Your task to perform on an android device: Search for the best rated desk chair on Article.com Image 0: 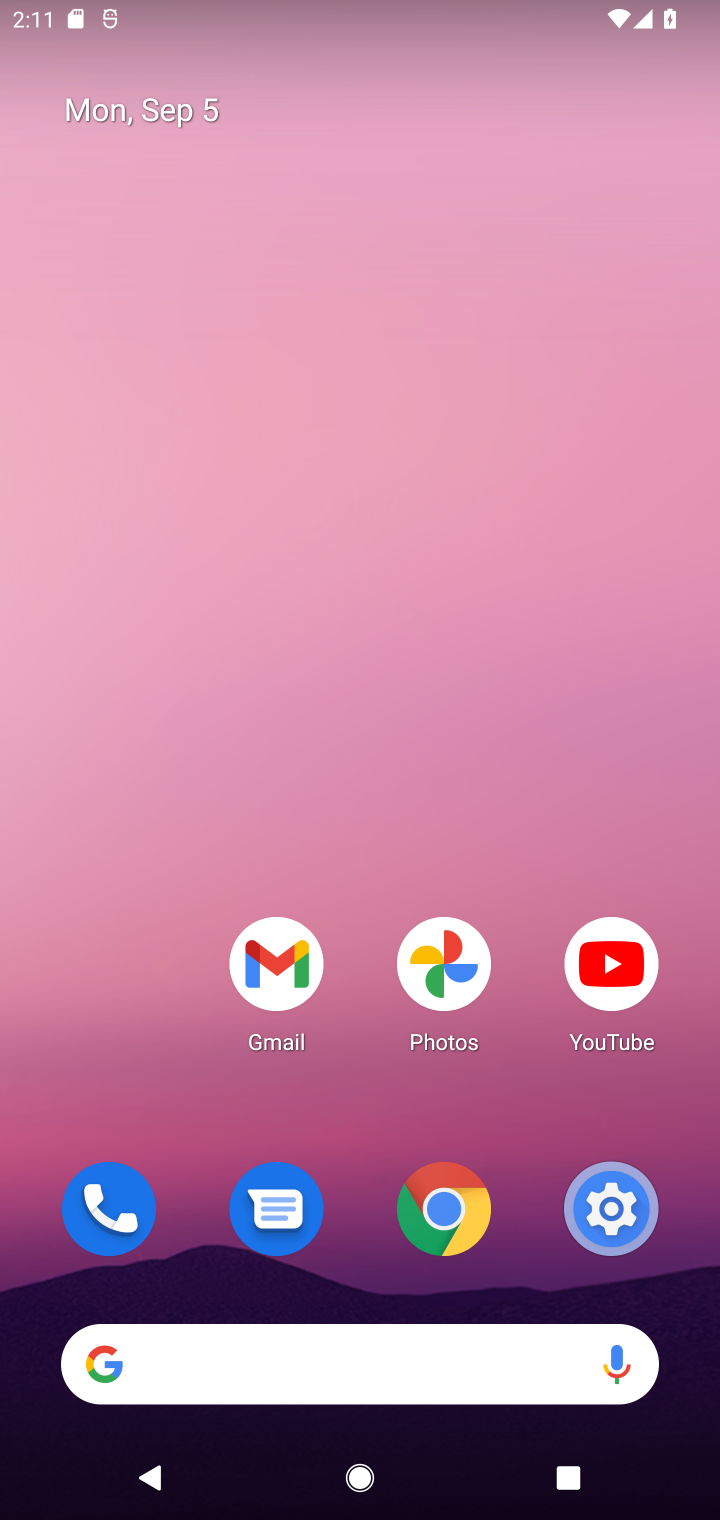
Step 0: drag from (385, 354) to (409, 0)
Your task to perform on an android device: Search for the best rated desk chair on Article.com Image 1: 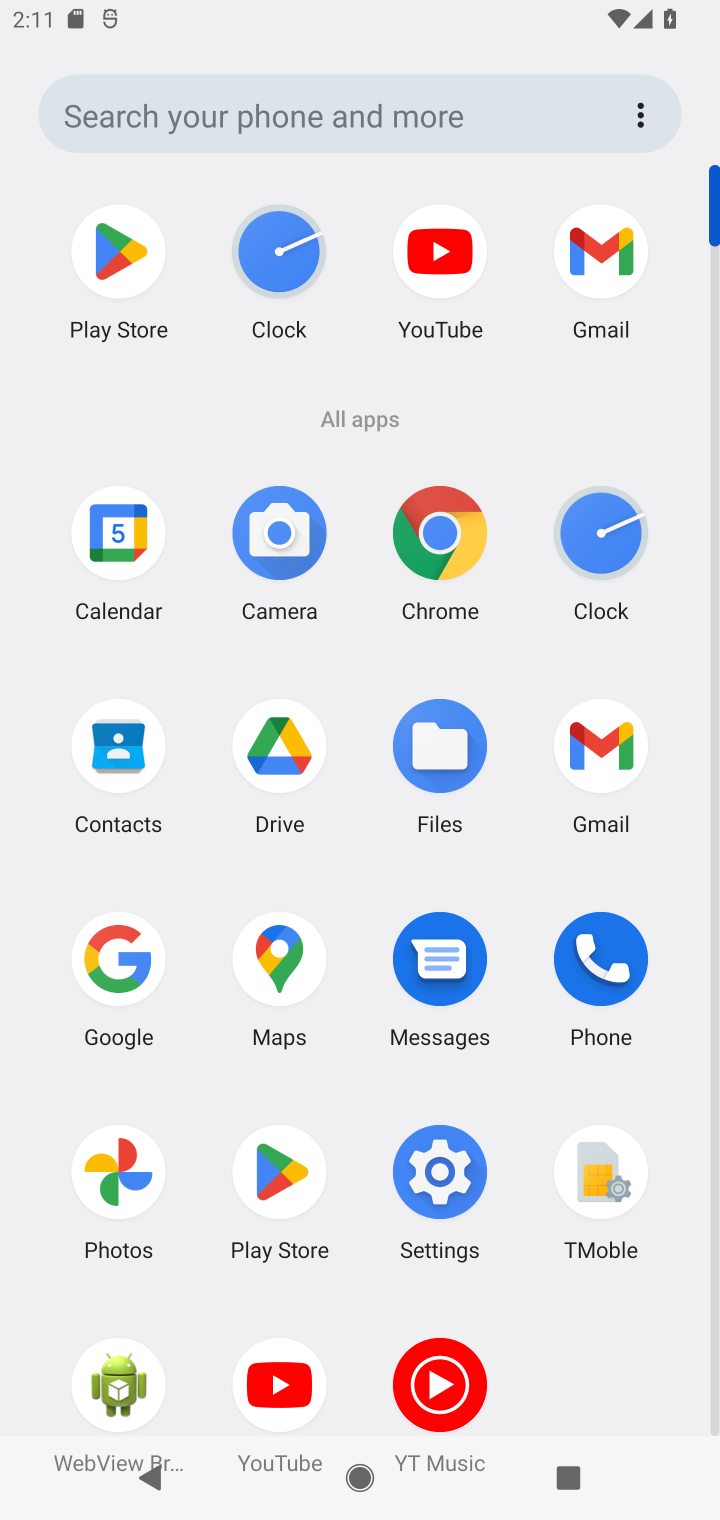
Step 1: click (97, 967)
Your task to perform on an android device: Search for the best rated desk chair on Article.com Image 2: 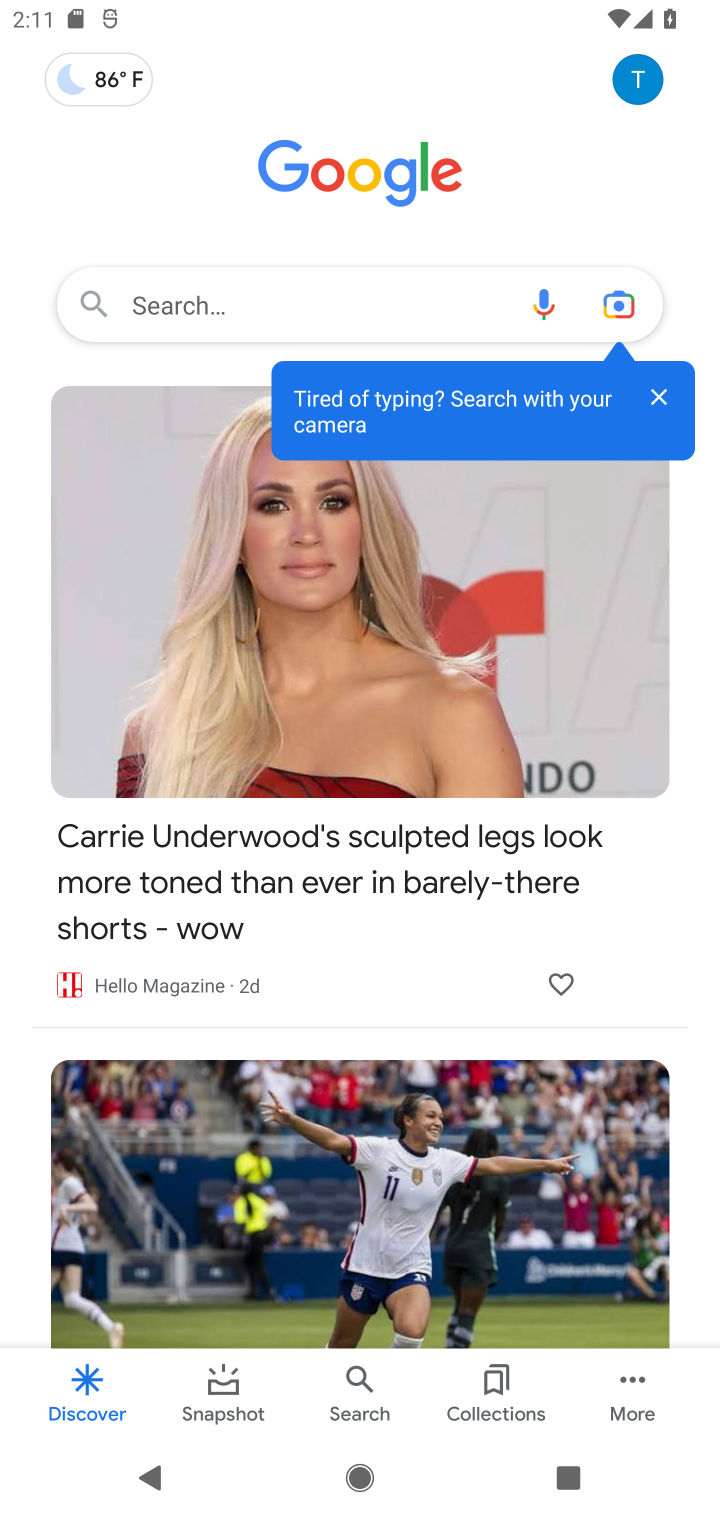
Step 2: click (180, 318)
Your task to perform on an android device: Search for the best rated desk chair on Article.com Image 3: 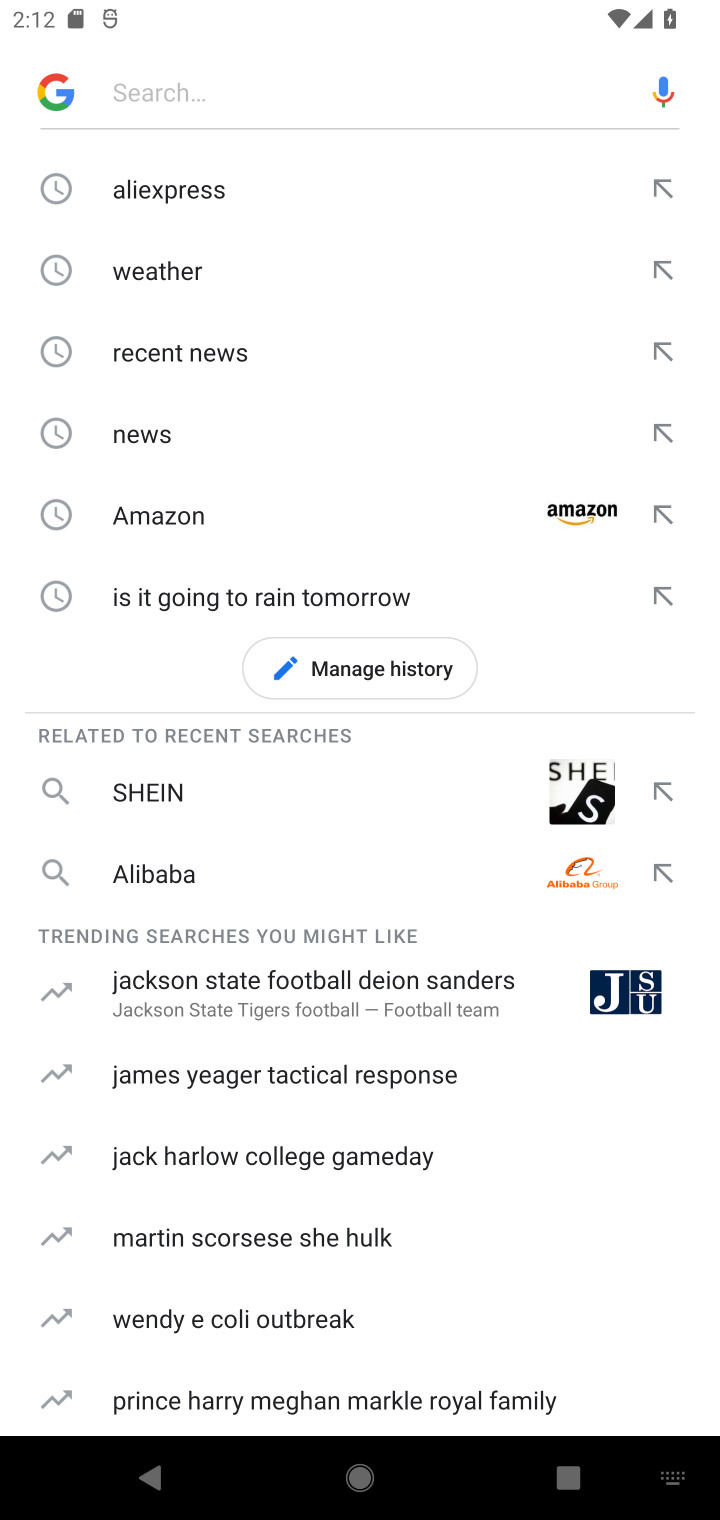
Step 3: type "Article.com"
Your task to perform on an android device: Search for the best rated desk chair on Article.com Image 4: 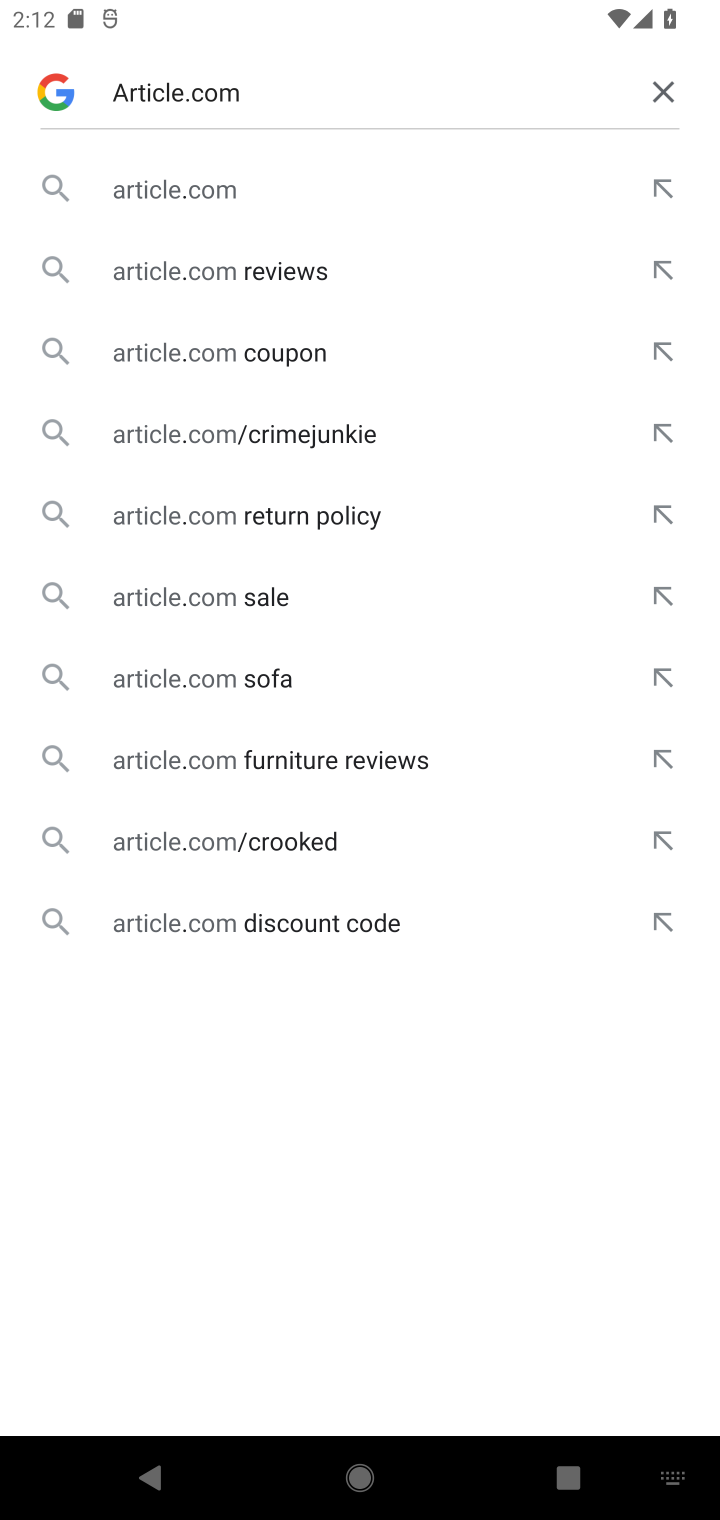
Step 4: click (194, 177)
Your task to perform on an android device: Search for the best rated desk chair on Article.com Image 5: 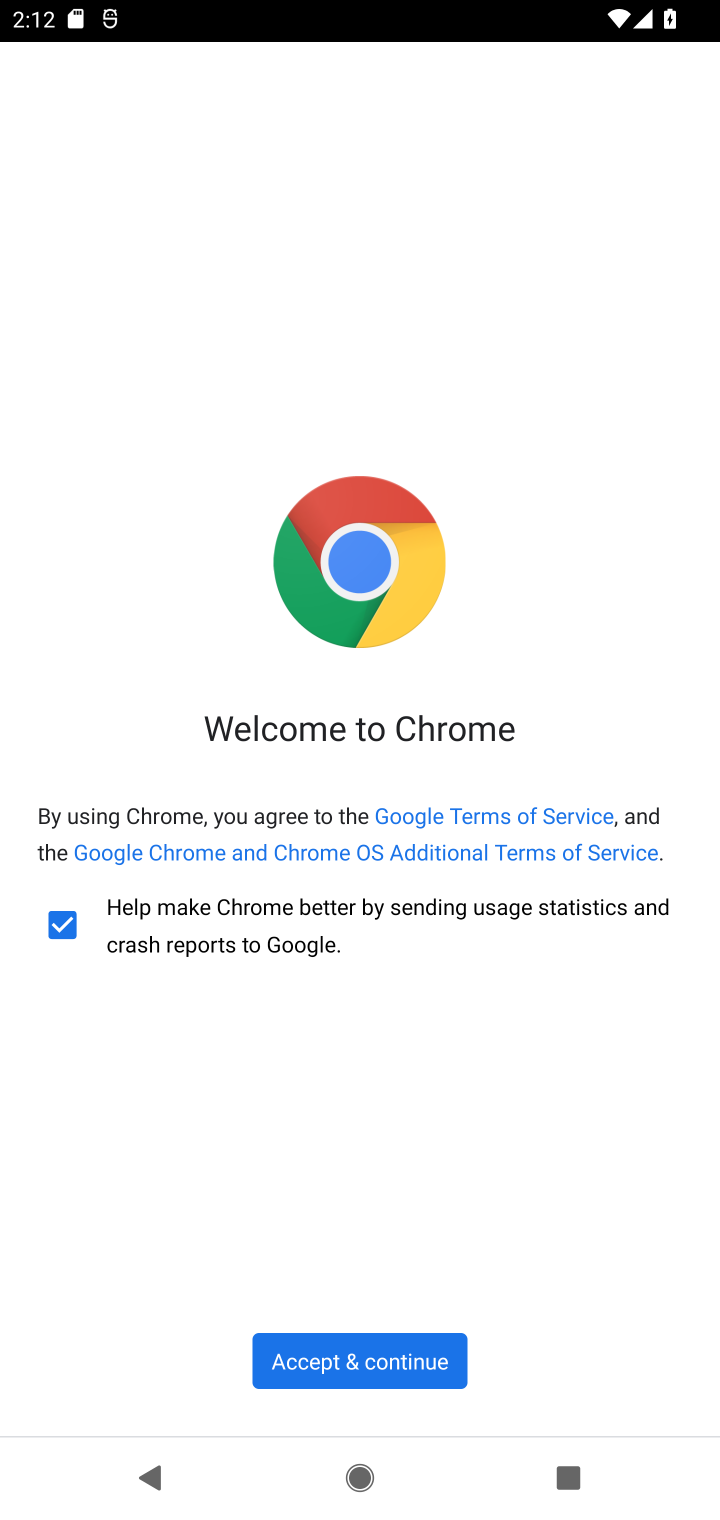
Step 5: click (314, 1364)
Your task to perform on an android device: Search for the best rated desk chair on Article.com Image 6: 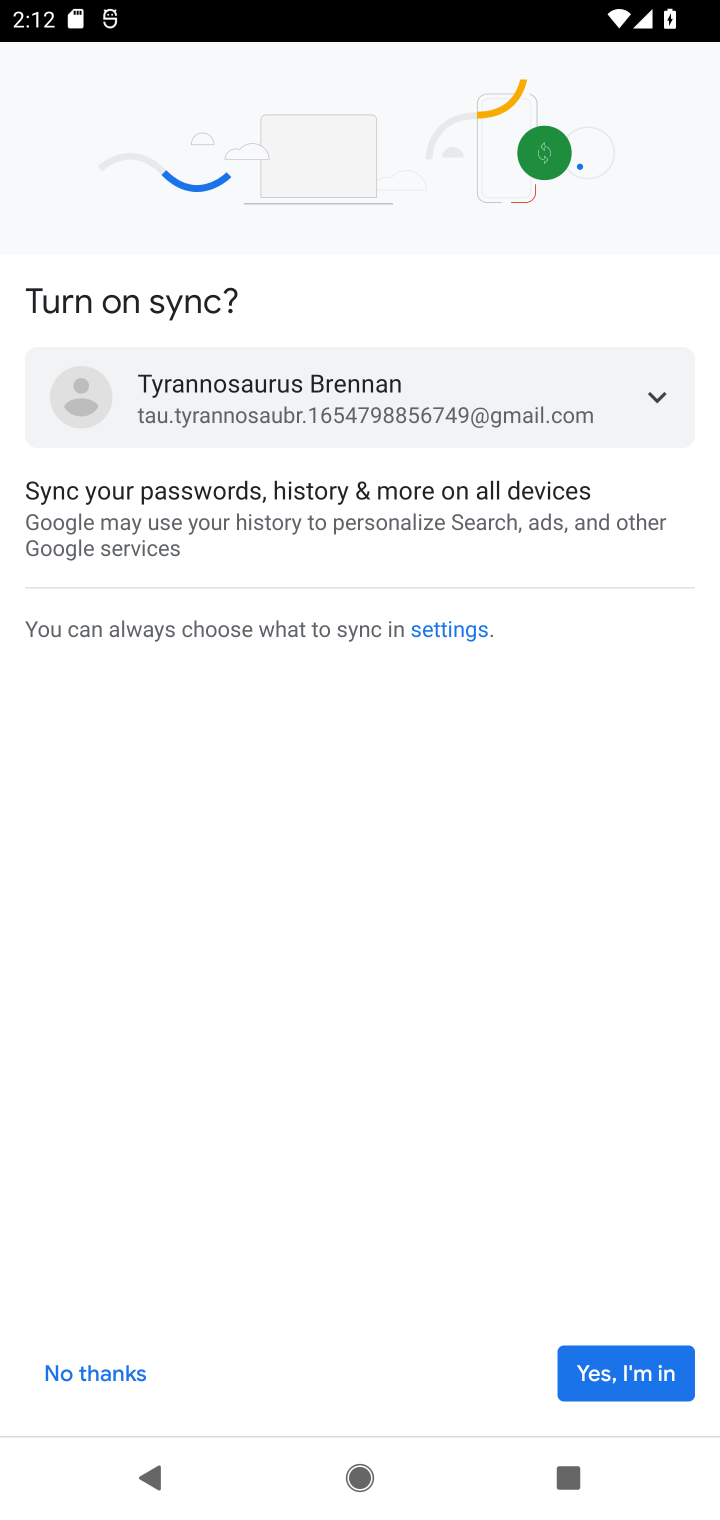
Step 6: click (625, 1374)
Your task to perform on an android device: Search for the best rated desk chair on Article.com Image 7: 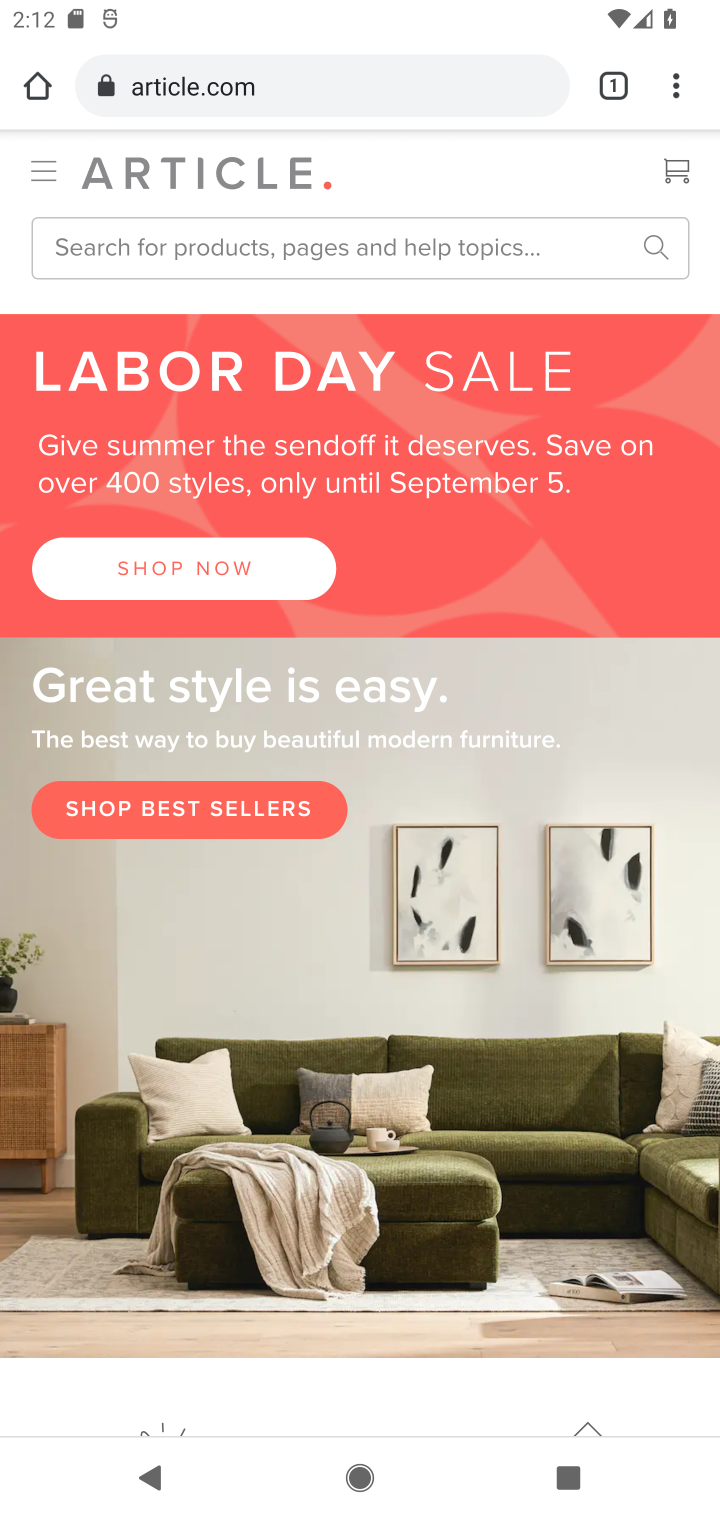
Step 7: click (151, 261)
Your task to perform on an android device: Search for the best rated desk chair on Article.com Image 8: 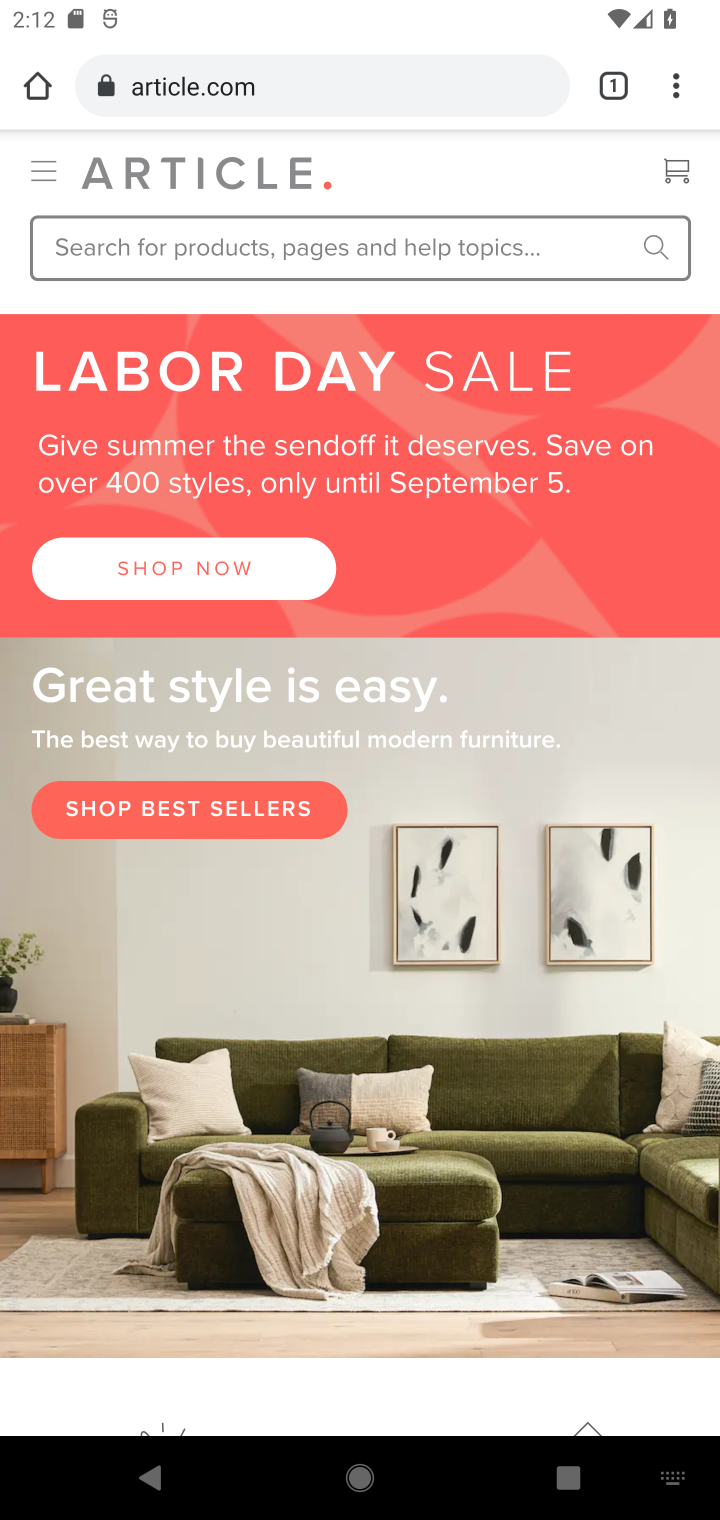
Step 8: type "best rated desk chair "
Your task to perform on an android device: Search for the best rated desk chair on Article.com Image 9: 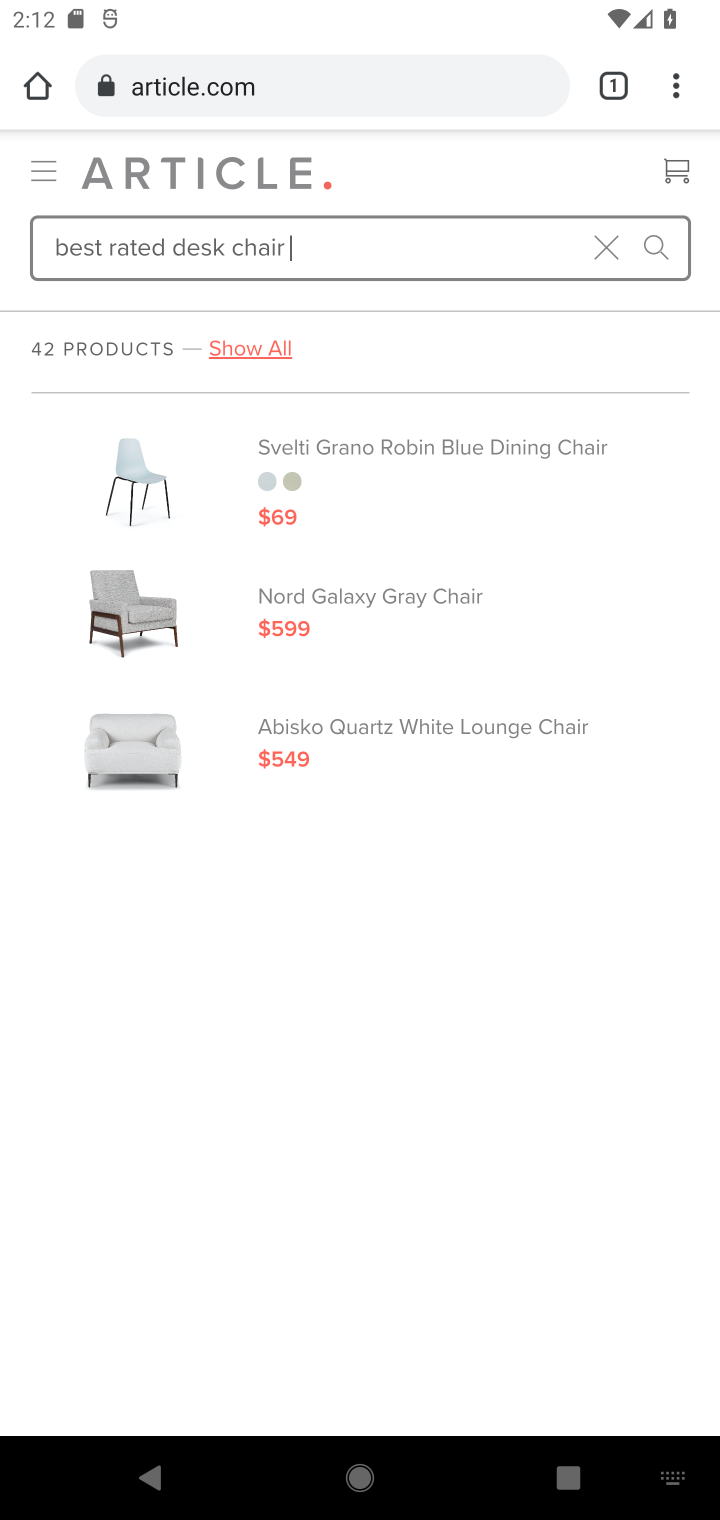
Step 9: click (243, 342)
Your task to perform on an android device: Search for the best rated desk chair on Article.com Image 10: 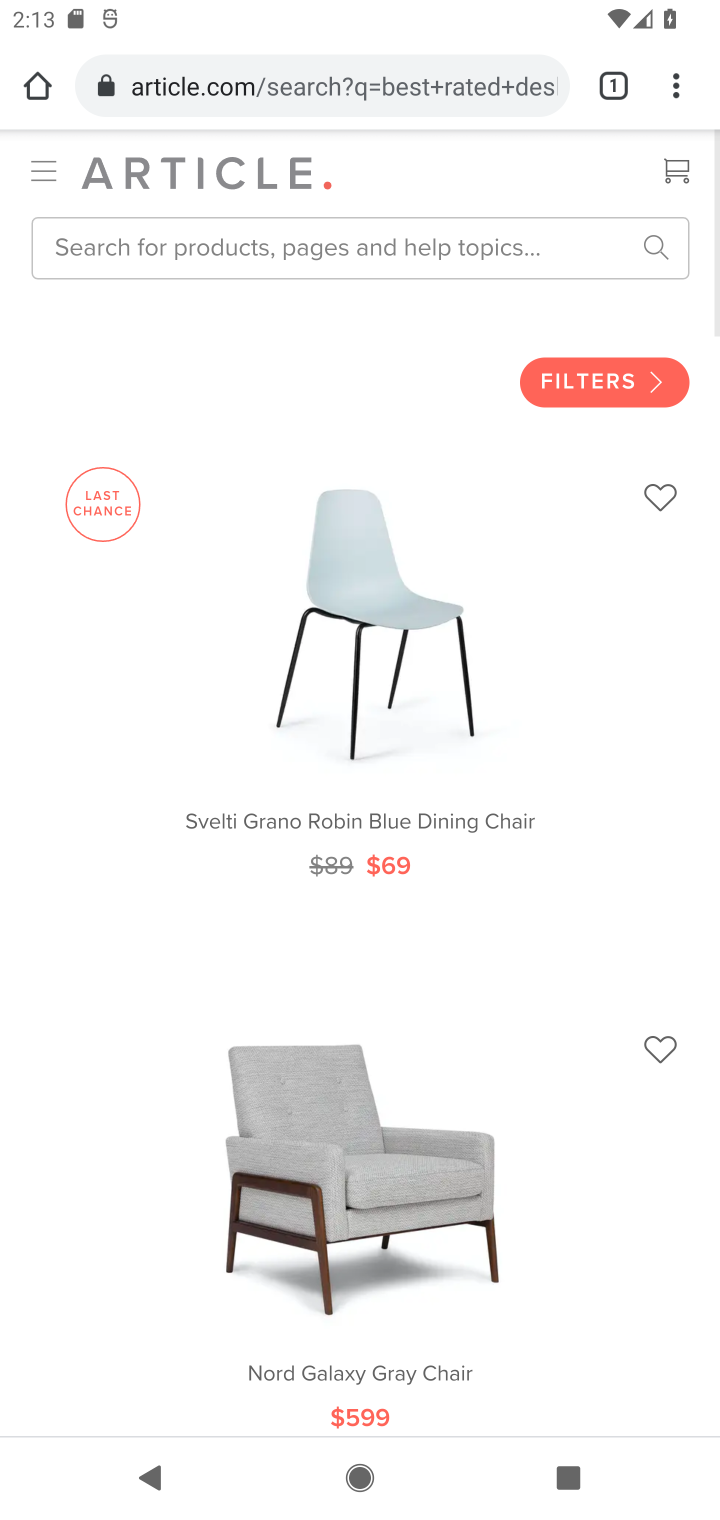
Step 10: drag from (339, 418) to (364, 240)
Your task to perform on an android device: Search for the best rated desk chair on Article.com Image 11: 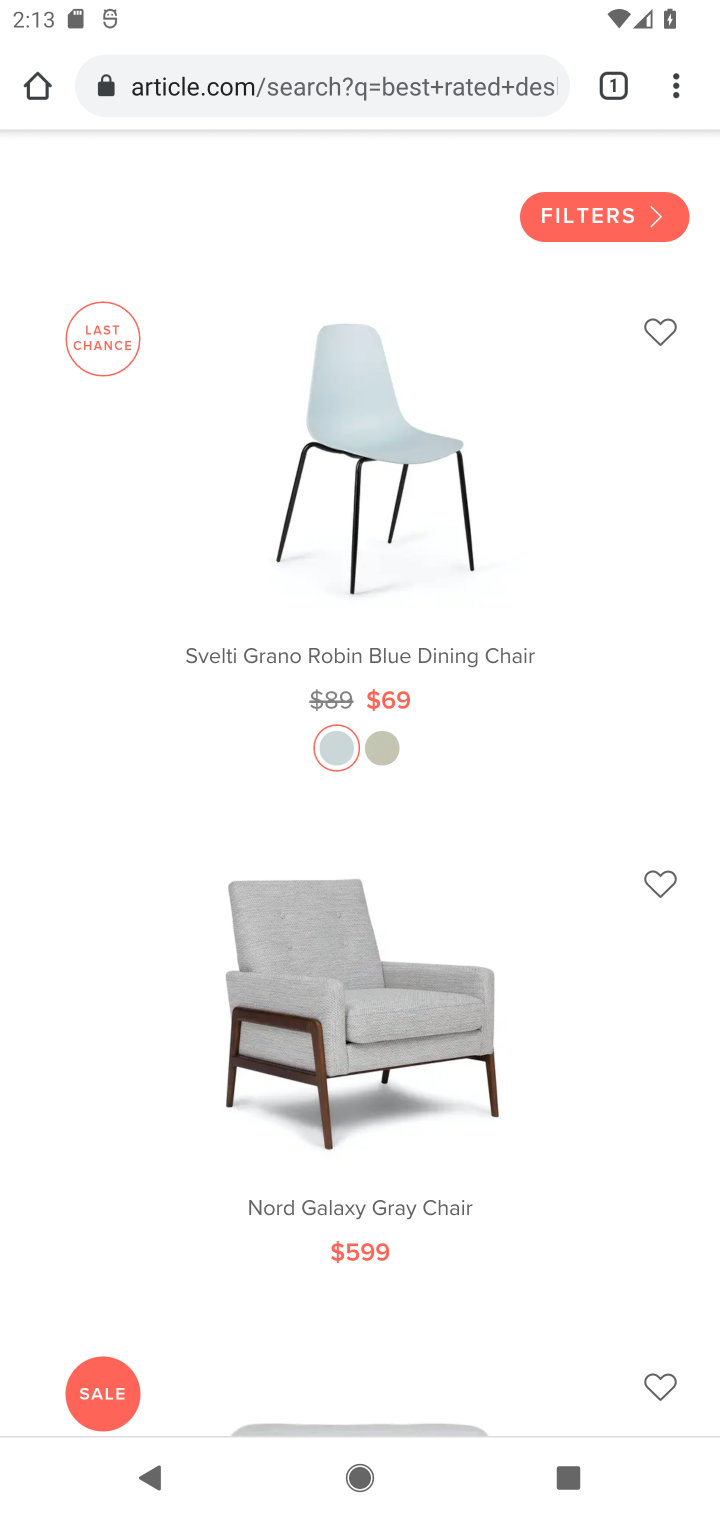
Step 11: drag from (376, 959) to (350, 309)
Your task to perform on an android device: Search for the best rated desk chair on Article.com Image 12: 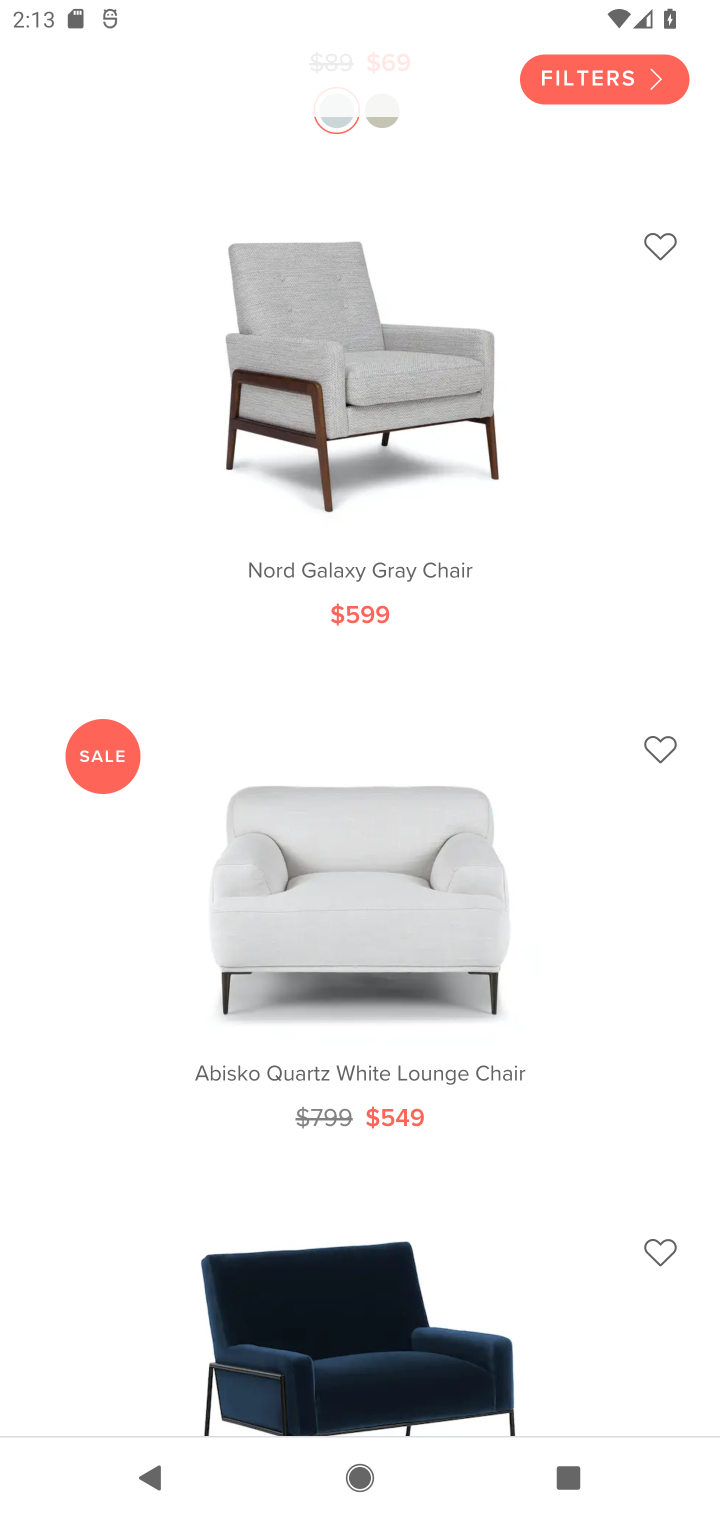
Step 12: drag from (448, 1304) to (455, 377)
Your task to perform on an android device: Search for the best rated desk chair on Article.com Image 13: 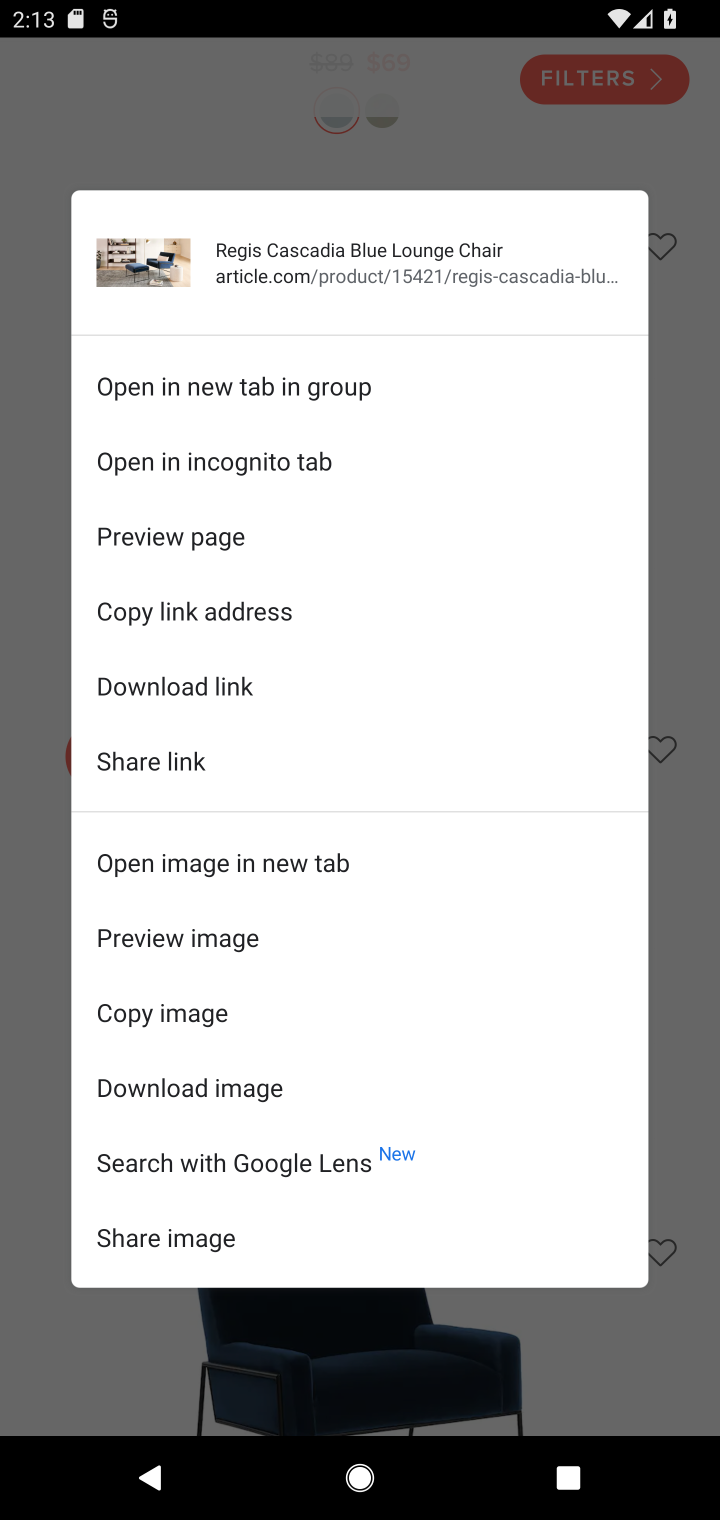
Step 13: click (672, 503)
Your task to perform on an android device: Search for the best rated desk chair on Article.com Image 14: 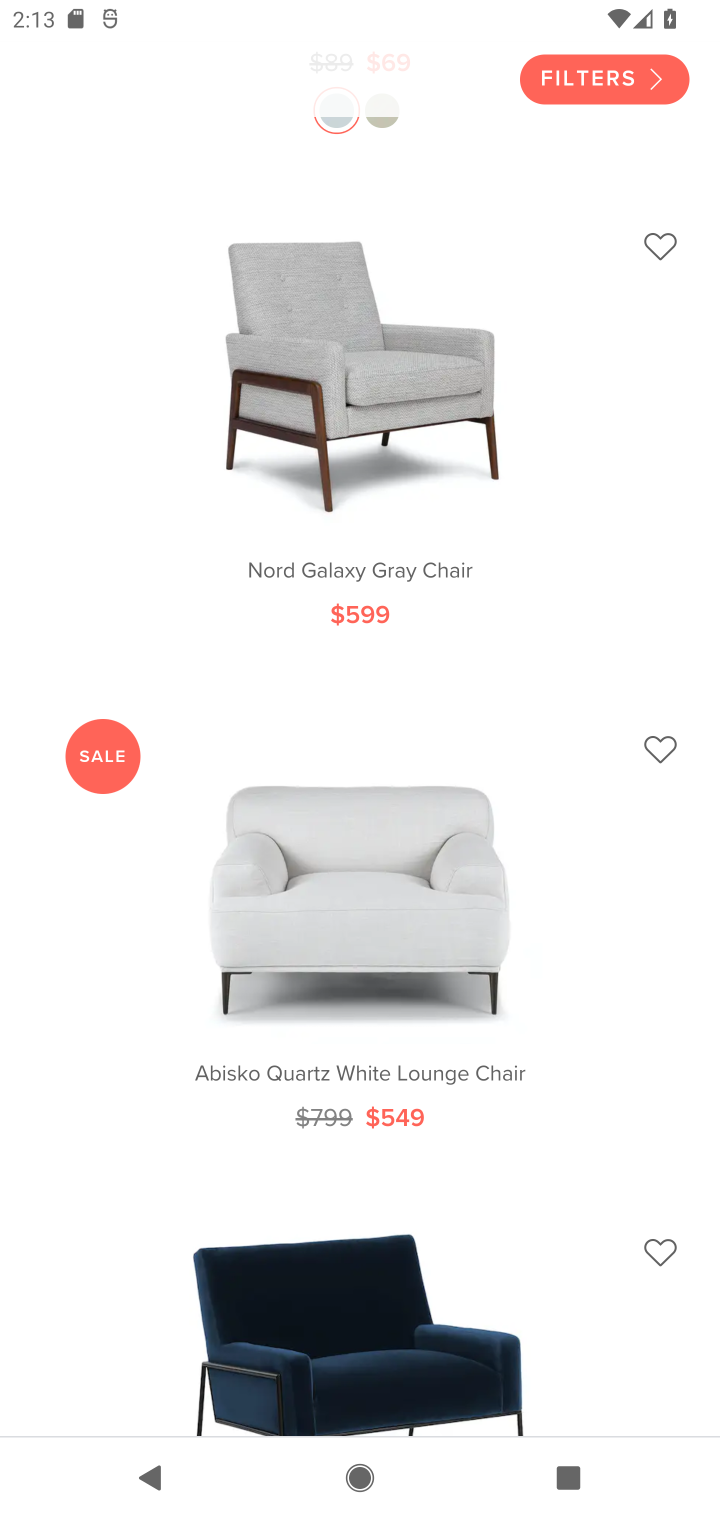
Step 14: task complete